Your task to perform on an android device: Open location settings Image 0: 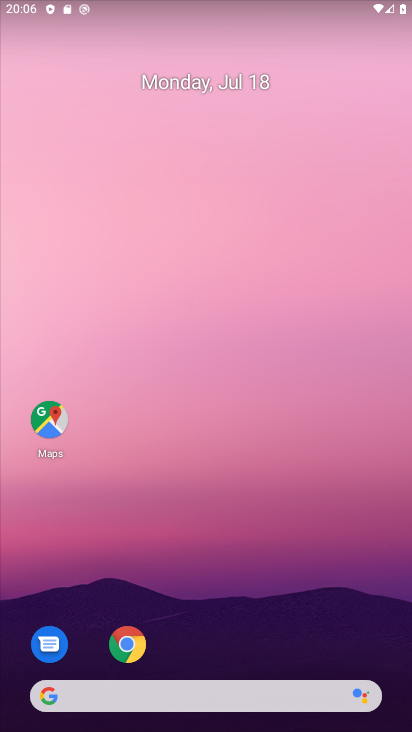
Step 0: drag from (225, 694) to (318, 92)
Your task to perform on an android device: Open location settings Image 1: 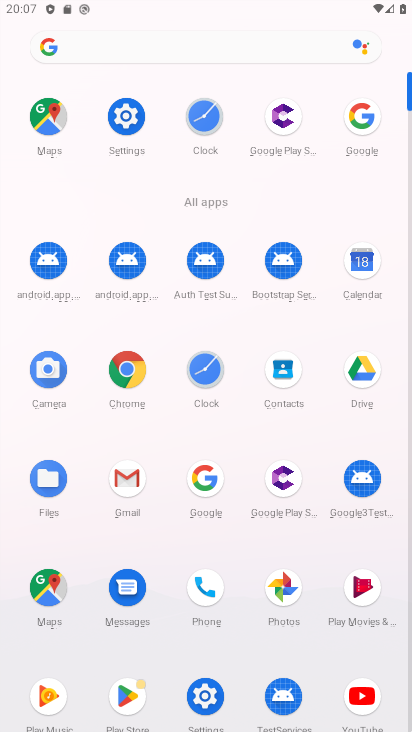
Step 1: click (123, 117)
Your task to perform on an android device: Open location settings Image 2: 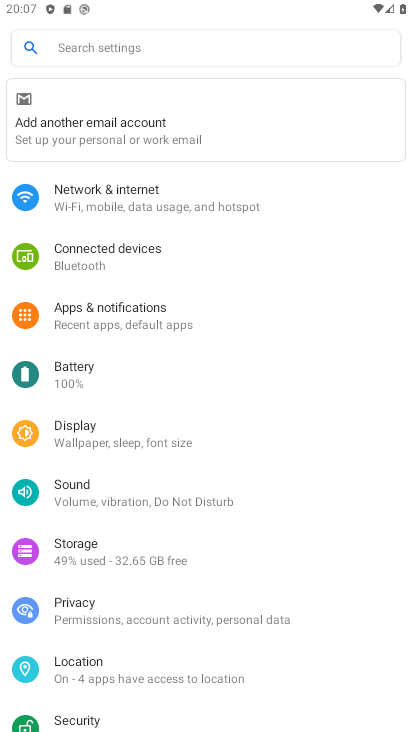
Step 2: click (91, 673)
Your task to perform on an android device: Open location settings Image 3: 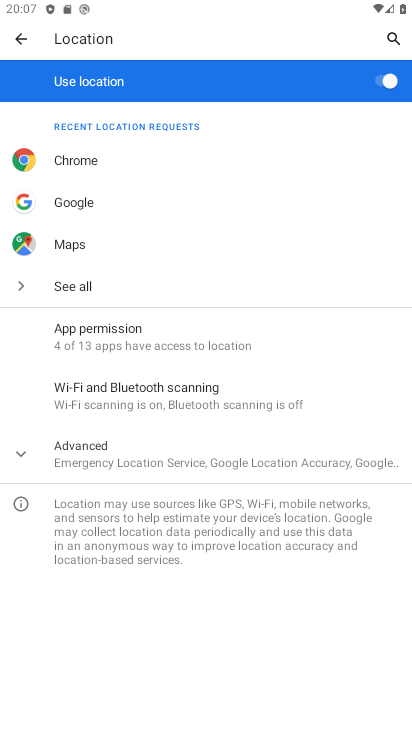
Step 3: task complete